Your task to perform on an android device: Open calendar and show me the second week of next month Image 0: 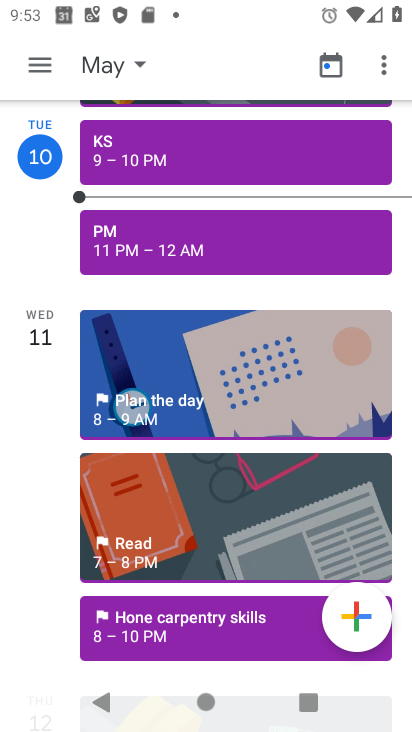
Step 0: click (109, 69)
Your task to perform on an android device: Open calendar and show me the second week of next month Image 1: 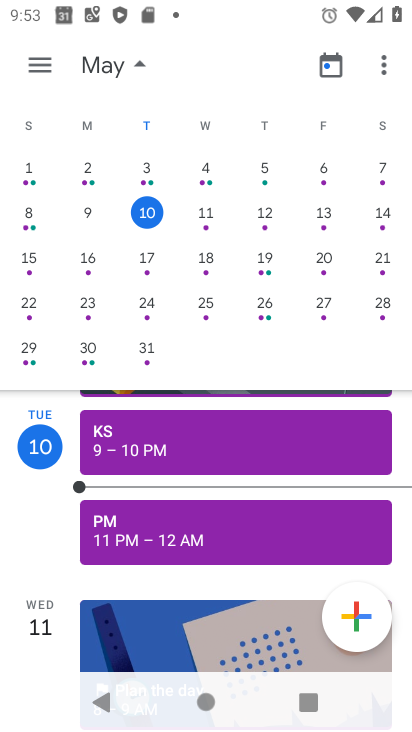
Step 1: drag from (334, 248) to (33, 244)
Your task to perform on an android device: Open calendar and show me the second week of next month Image 2: 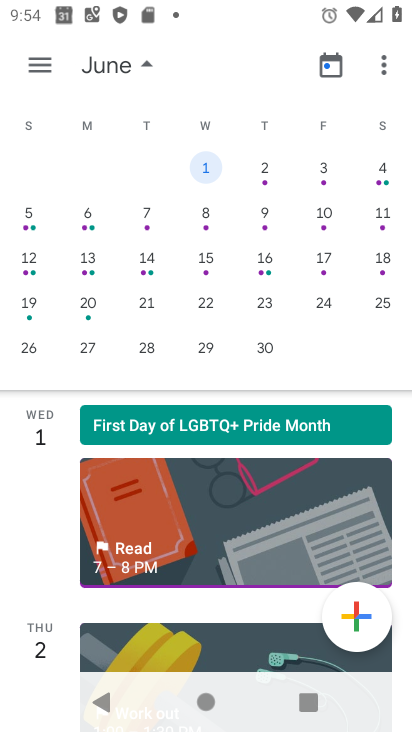
Step 2: click (89, 257)
Your task to perform on an android device: Open calendar and show me the second week of next month Image 3: 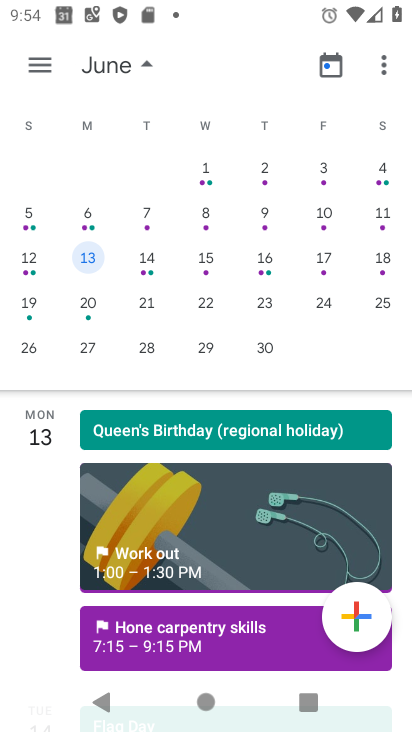
Step 3: click (39, 63)
Your task to perform on an android device: Open calendar and show me the second week of next month Image 4: 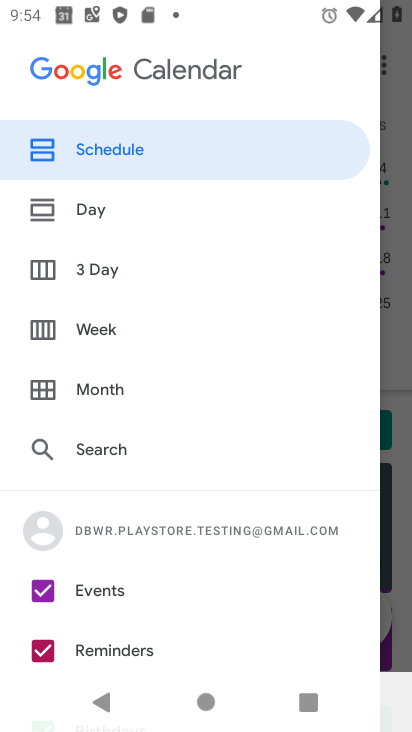
Step 4: click (97, 327)
Your task to perform on an android device: Open calendar and show me the second week of next month Image 5: 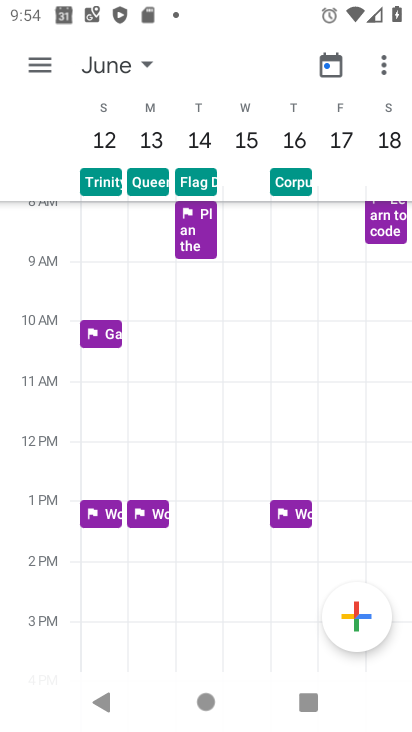
Step 5: task complete